Your task to perform on an android device: Open calendar and show me the second week of next month Image 0: 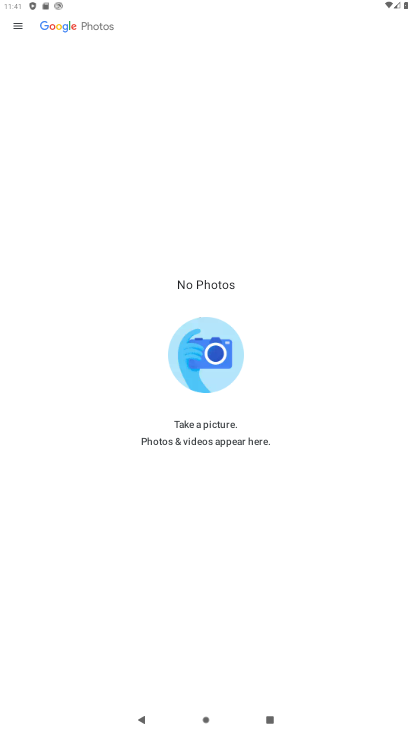
Step 0: press back button
Your task to perform on an android device: Open calendar and show me the second week of next month Image 1: 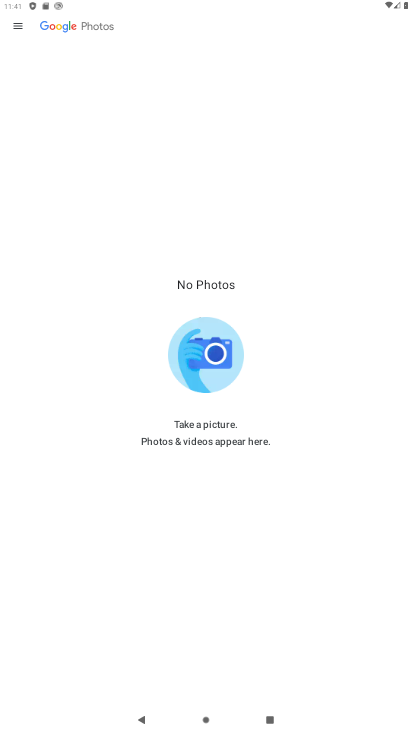
Step 1: press back button
Your task to perform on an android device: Open calendar and show me the second week of next month Image 2: 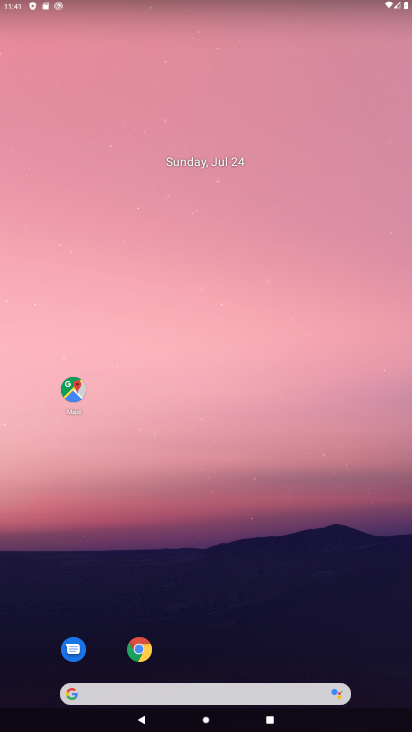
Step 2: drag from (217, 627) to (246, 178)
Your task to perform on an android device: Open calendar and show me the second week of next month Image 3: 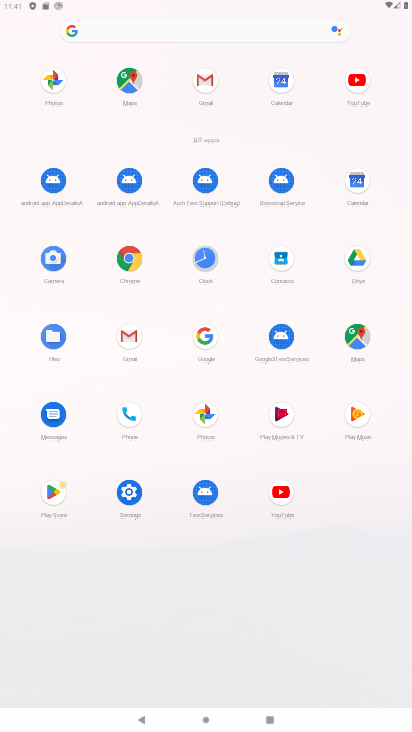
Step 3: click (202, 108)
Your task to perform on an android device: Open calendar and show me the second week of next month Image 4: 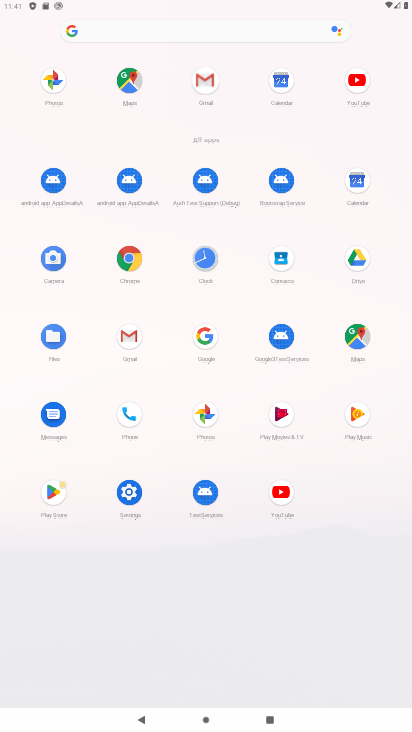
Step 4: drag from (215, 274) to (212, 317)
Your task to perform on an android device: Open calendar and show me the second week of next month Image 5: 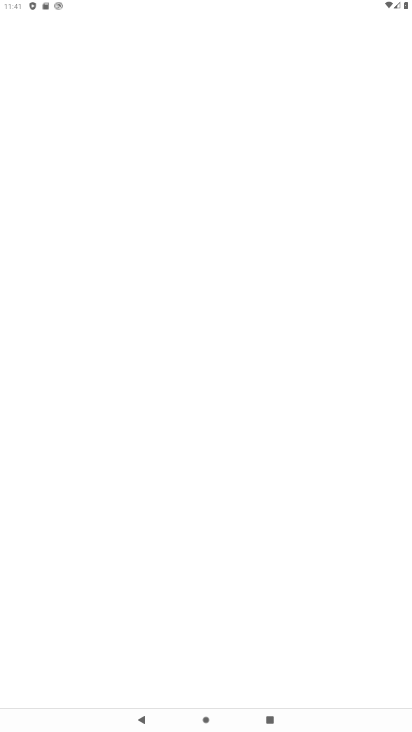
Step 5: click (293, 165)
Your task to perform on an android device: Open calendar and show me the second week of next month Image 6: 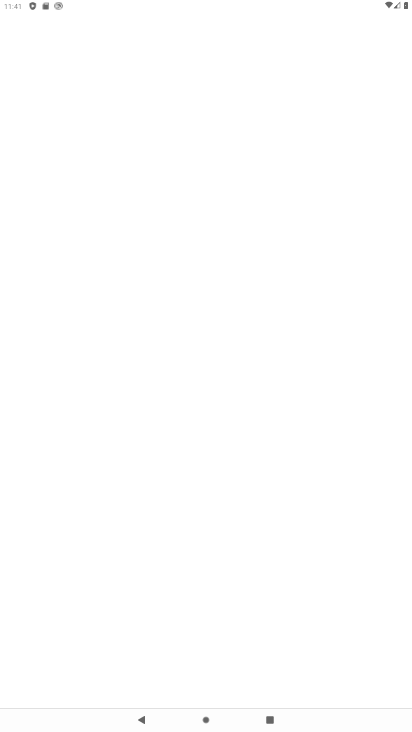
Step 6: drag from (221, 291) to (248, 211)
Your task to perform on an android device: Open calendar and show me the second week of next month Image 7: 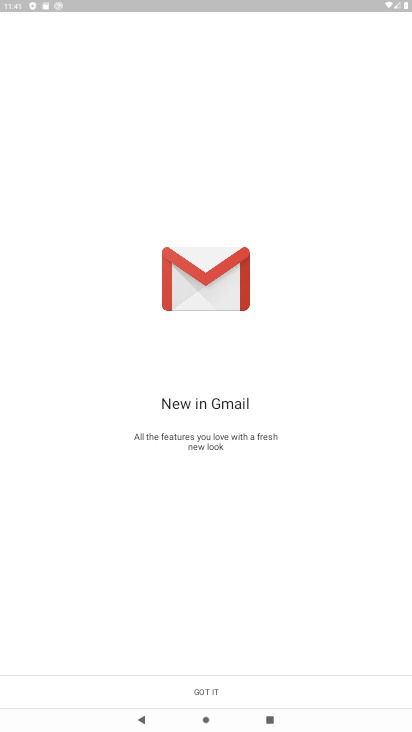
Step 7: press back button
Your task to perform on an android device: Open calendar and show me the second week of next month Image 8: 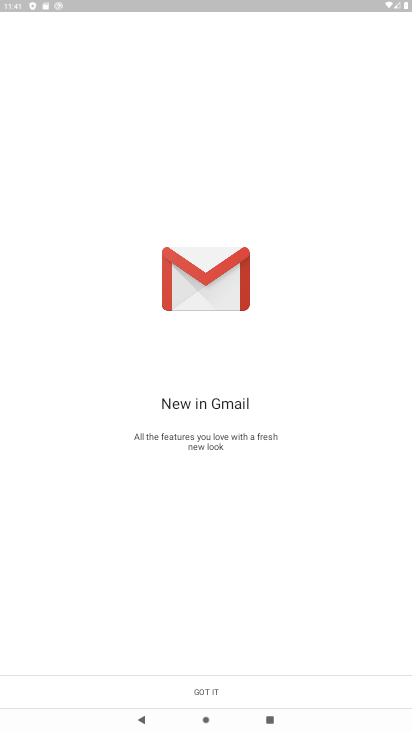
Step 8: press back button
Your task to perform on an android device: Open calendar and show me the second week of next month Image 9: 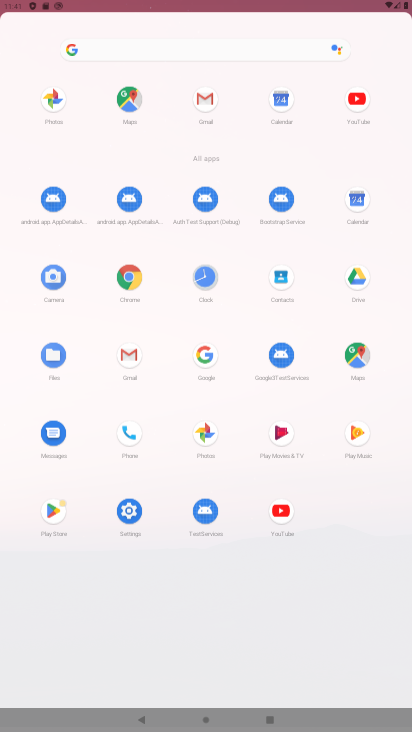
Step 9: press back button
Your task to perform on an android device: Open calendar and show me the second week of next month Image 10: 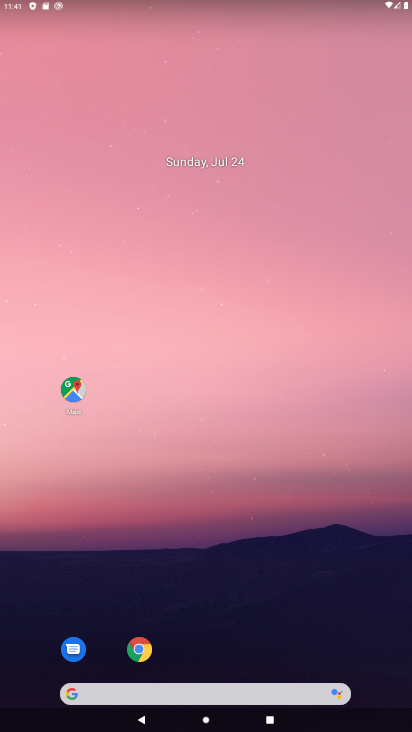
Step 10: press back button
Your task to perform on an android device: Open calendar and show me the second week of next month Image 11: 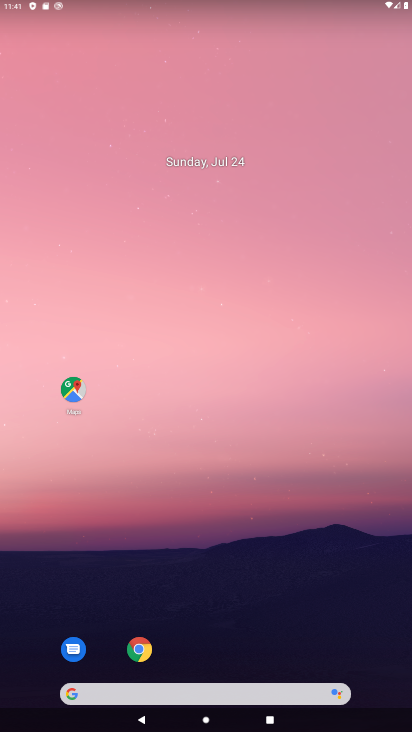
Step 11: drag from (221, 695) to (241, 182)
Your task to perform on an android device: Open calendar and show me the second week of next month Image 12: 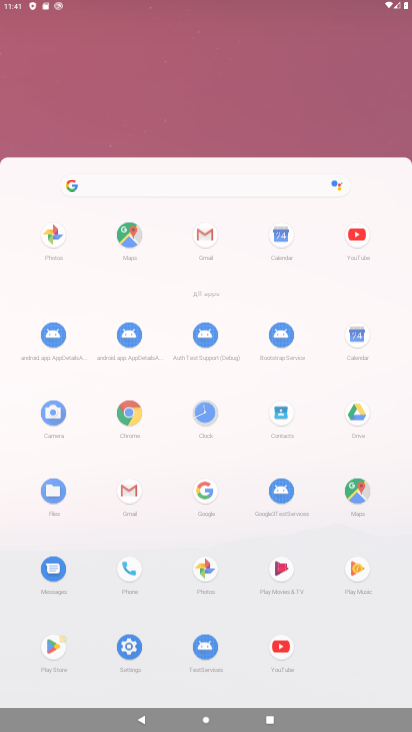
Step 12: drag from (265, 618) to (296, 183)
Your task to perform on an android device: Open calendar and show me the second week of next month Image 13: 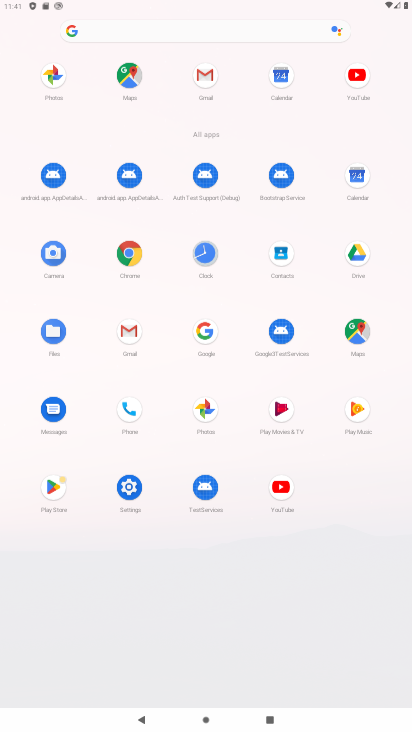
Step 13: drag from (262, 605) to (213, 201)
Your task to perform on an android device: Open calendar and show me the second week of next month Image 14: 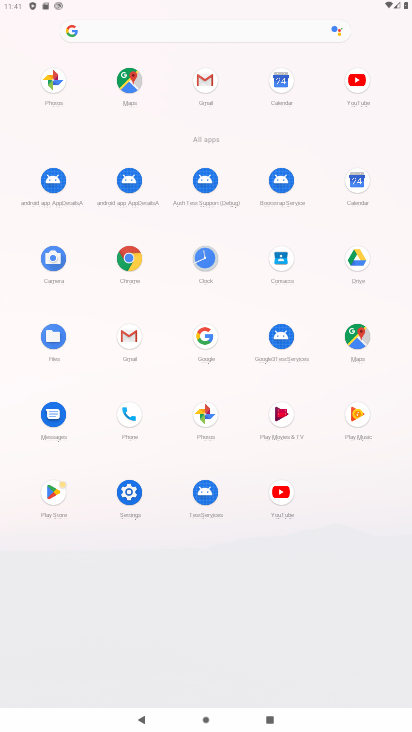
Step 14: click (352, 188)
Your task to perform on an android device: Open calendar and show me the second week of next month Image 15: 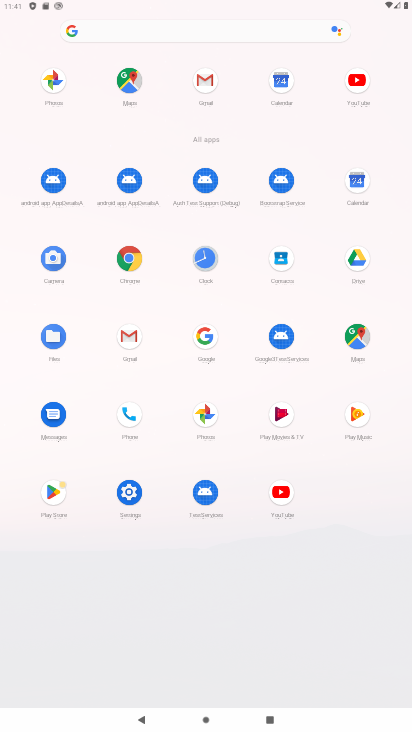
Step 15: click (361, 175)
Your task to perform on an android device: Open calendar and show me the second week of next month Image 16: 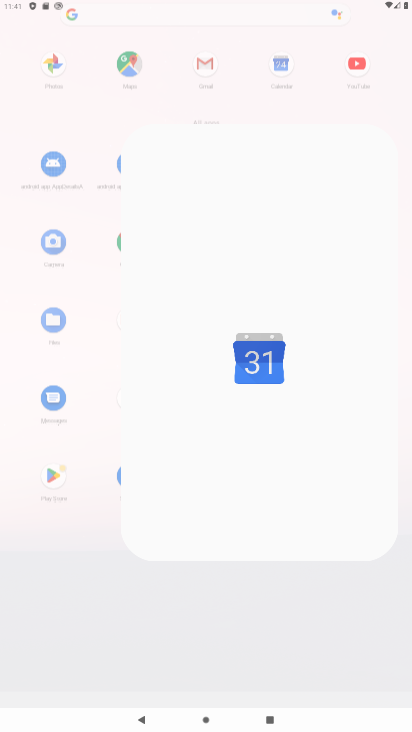
Step 16: click (368, 174)
Your task to perform on an android device: Open calendar and show me the second week of next month Image 17: 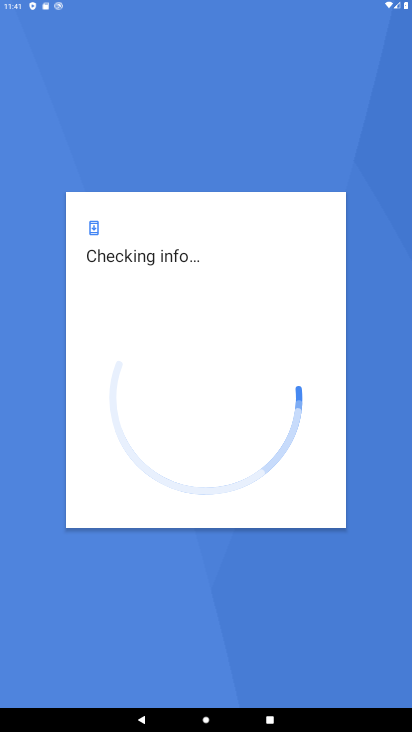
Step 17: click (352, 397)
Your task to perform on an android device: Open calendar and show me the second week of next month Image 18: 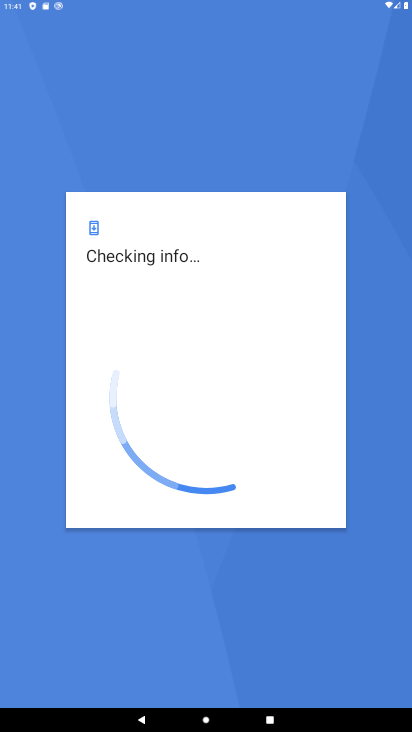
Step 18: task complete